Your task to perform on an android device: Open the stopwatch Image 0: 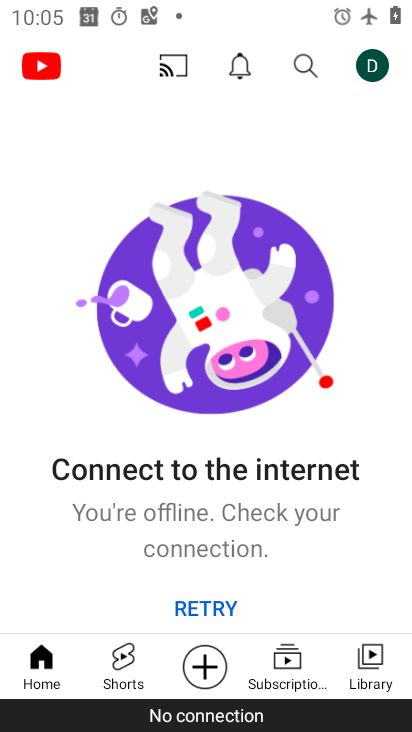
Step 0: press home button
Your task to perform on an android device: Open the stopwatch Image 1: 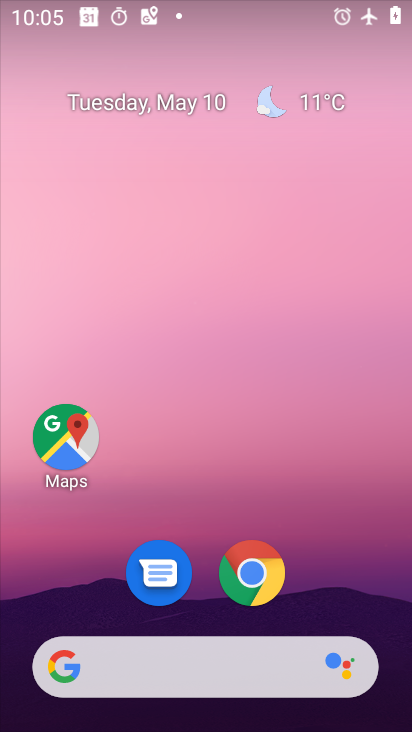
Step 1: drag from (332, 609) to (307, 9)
Your task to perform on an android device: Open the stopwatch Image 2: 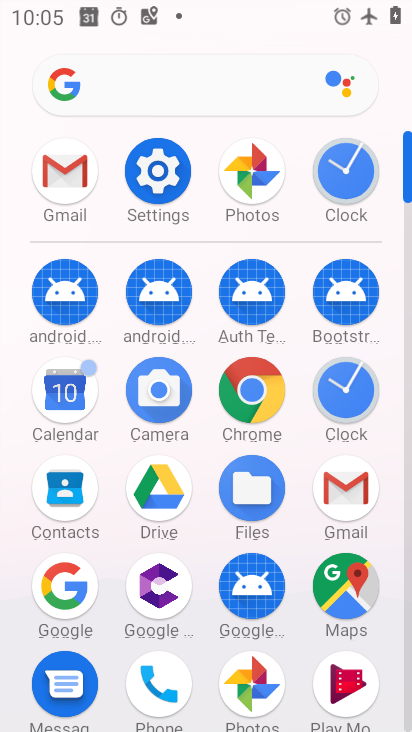
Step 2: click (340, 182)
Your task to perform on an android device: Open the stopwatch Image 3: 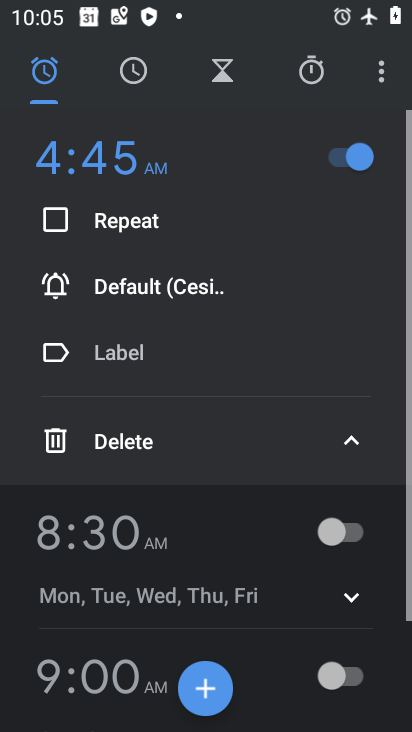
Step 3: click (310, 72)
Your task to perform on an android device: Open the stopwatch Image 4: 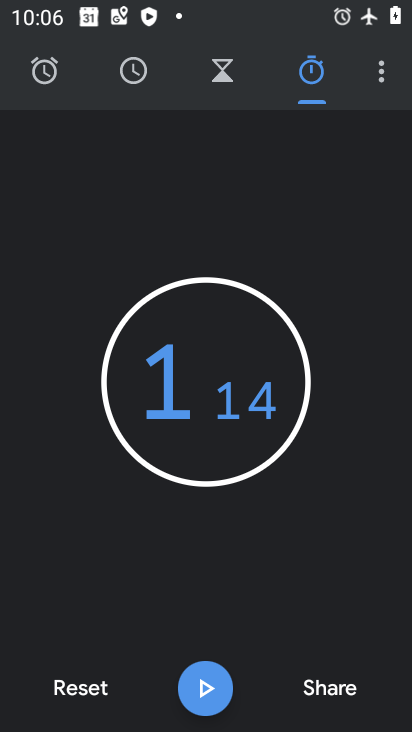
Step 4: task complete